Your task to perform on an android device: Is it going to rain tomorrow? Image 0: 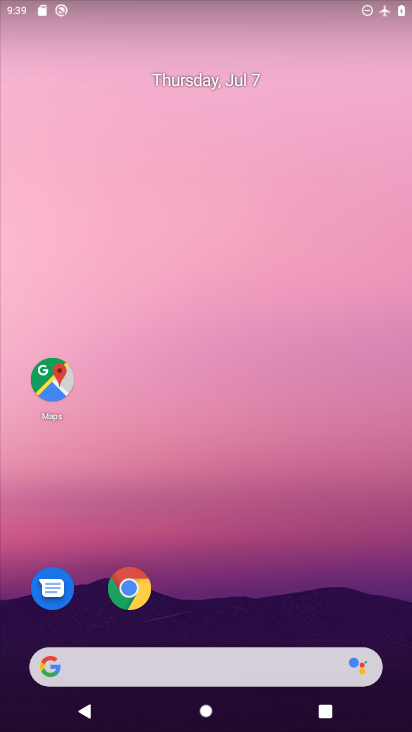
Step 0: click (131, 669)
Your task to perform on an android device: Is it going to rain tomorrow? Image 1: 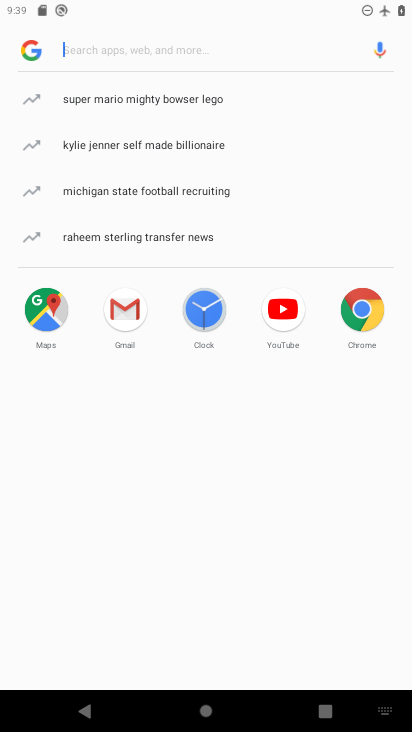
Step 1: type "Is it going to rain tomorrow?"
Your task to perform on an android device: Is it going to rain tomorrow? Image 2: 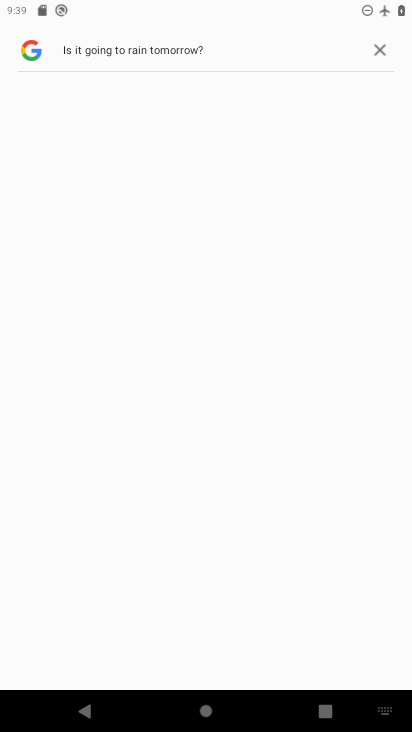
Step 2: drag from (326, 9) to (234, 583)
Your task to perform on an android device: Is it going to rain tomorrow? Image 3: 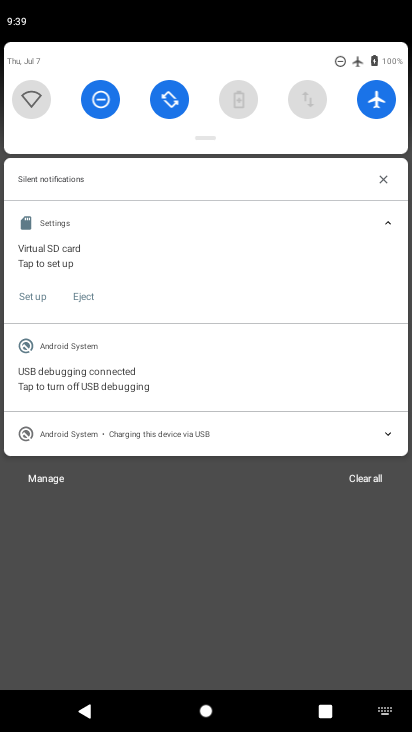
Step 3: click (368, 98)
Your task to perform on an android device: Is it going to rain tomorrow? Image 4: 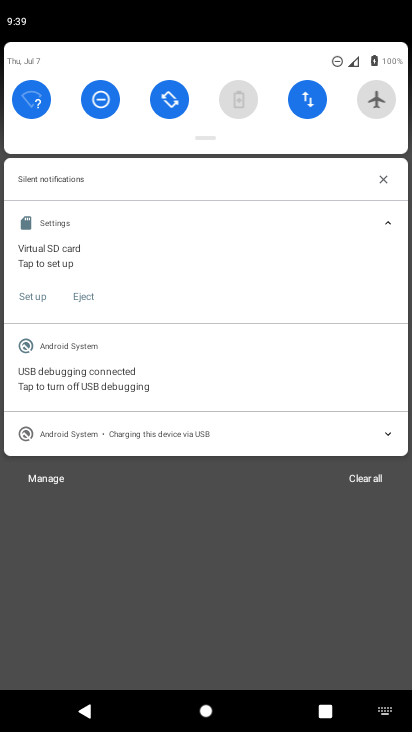
Step 4: task complete